Your task to perform on an android device: set the stopwatch Image 0: 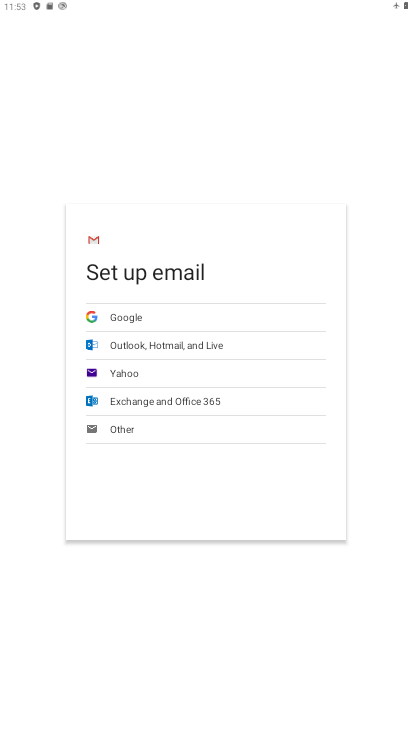
Step 0: press home button
Your task to perform on an android device: set the stopwatch Image 1: 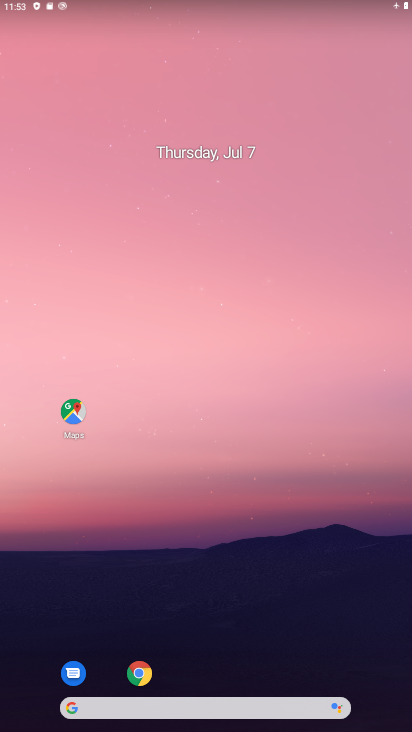
Step 1: drag from (191, 702) to (257, 187)
Your task to perform on an android device: set the stopwatch Image 2: 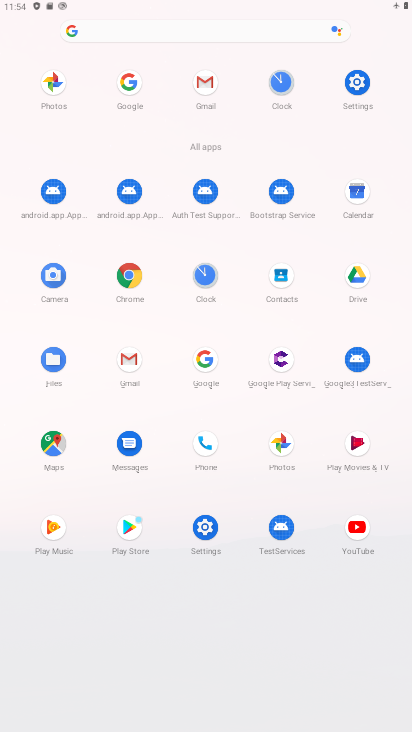
Step 2: click (197, 282)
Your task to perform on an android device: set the stopwatch Image 3: 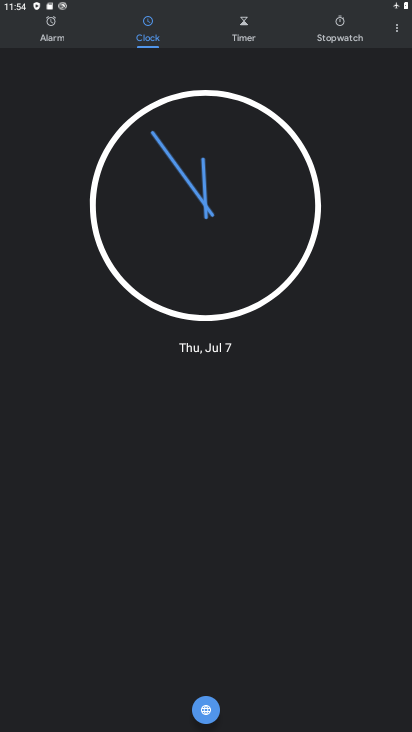
Step 3: click (340, 42)
Your task to perform on an android device: set the stopwatch Image 4: 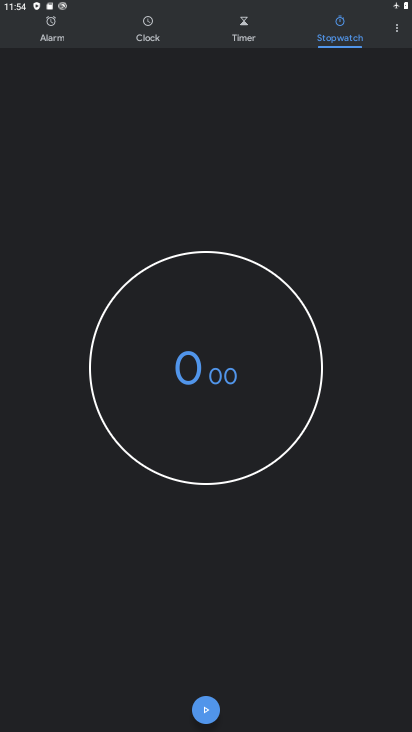
Step 4: click (184, 716)
Your task to perform on an android device: set the stopwatch Image 5: 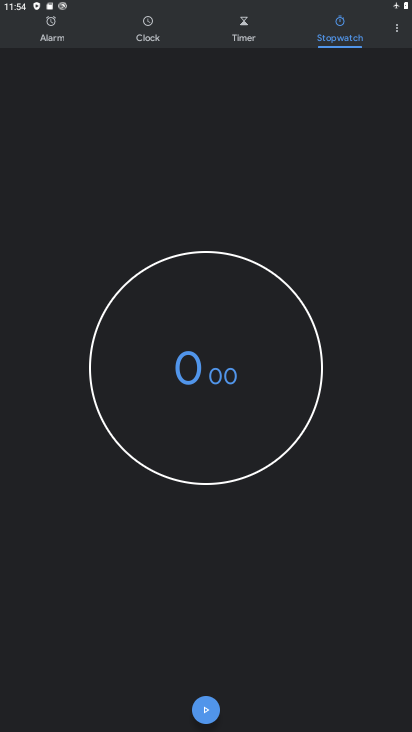
Step 5: click (211, 710)
Your task to perform on an android device: set the stopwatch Image 6: 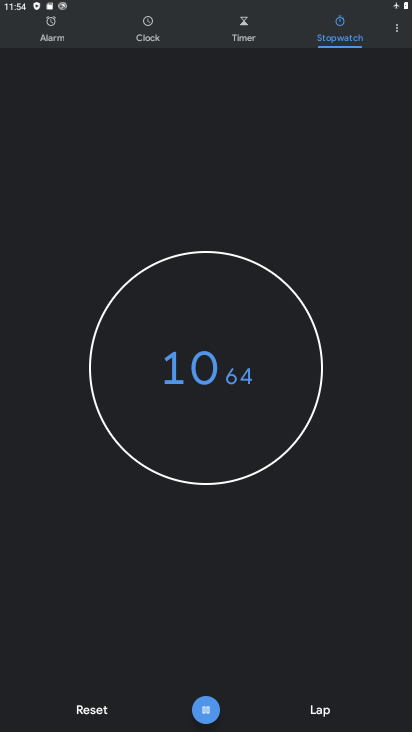
Step 6: task complete